Your task to perform on an android device: toggle wifi Image 0: 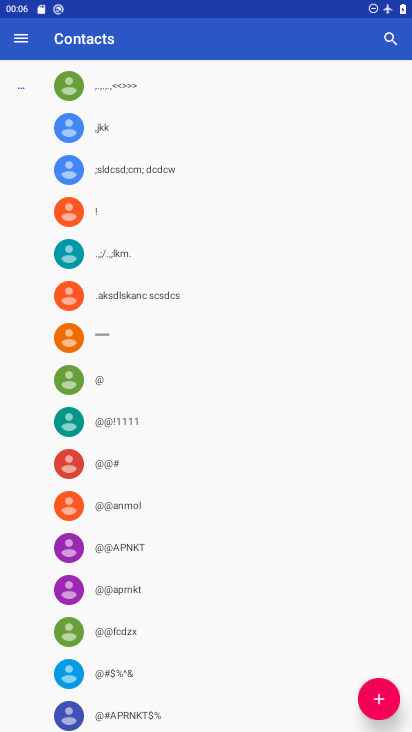
Step 0: press home button
Your task to perform on an android device: toggle wifi Image 1: 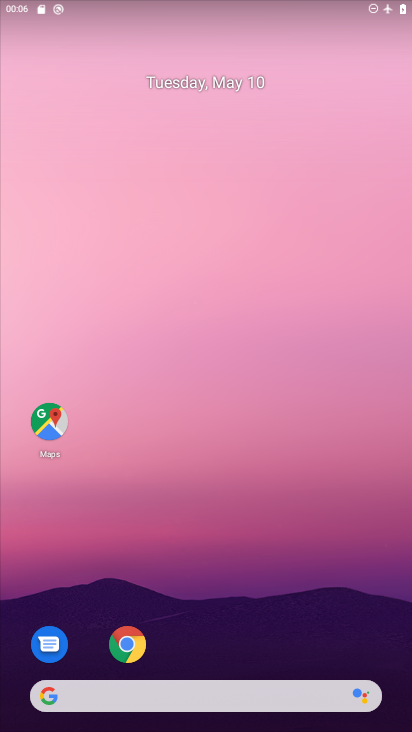
Step 1: drag from (196, 492) to (193, 124)
Your task to perform on an android device: toggle wifi Image 2: 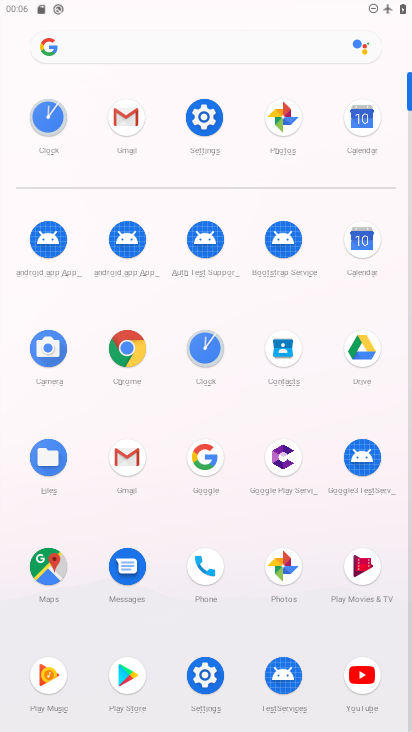
Step 2: click (193, 122)
Your task to perform on an android device: toggle wifi Image 3: 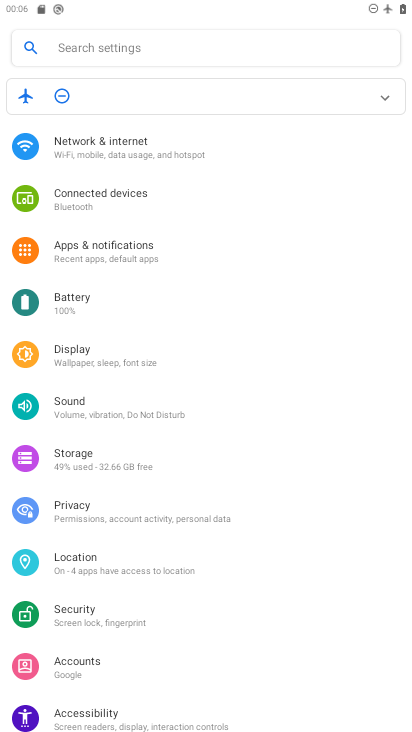
Step 3: click (172, 146)
Your task to perform on an android device: toggle wifi Image 4: 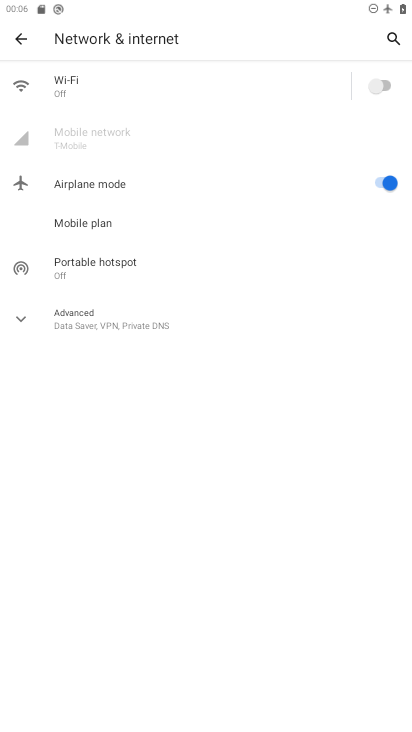
Step 4: click (94, 90)
Your task to perform on an android device: toggle wifi Image 5: 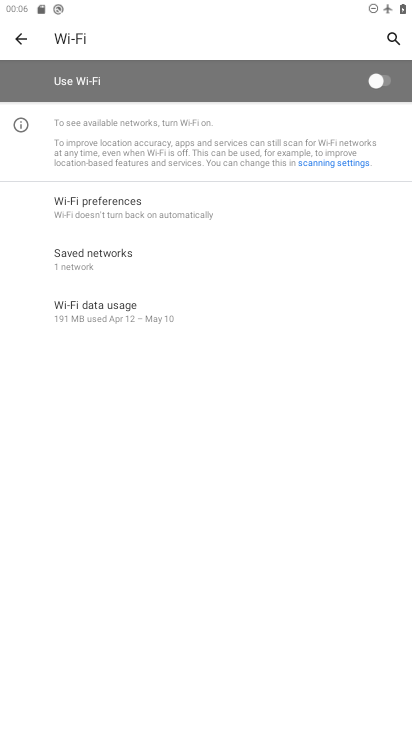
Step 5: click (383, 87)
Your task to perform on an android device: toggle wifi Image 6: 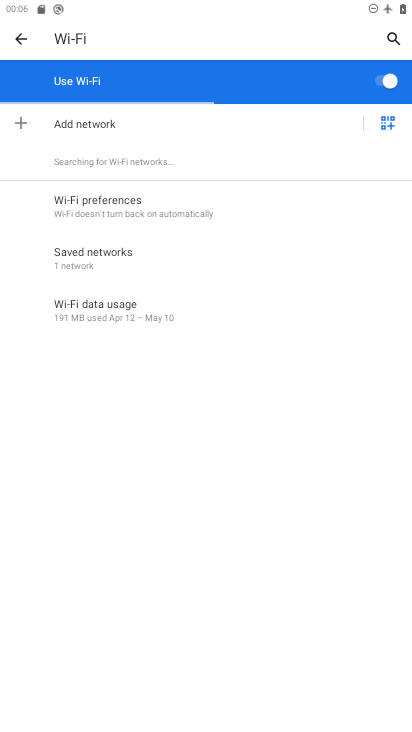
Step 6: task complete